Your task to perform on an android device: show emergency info Image 0: 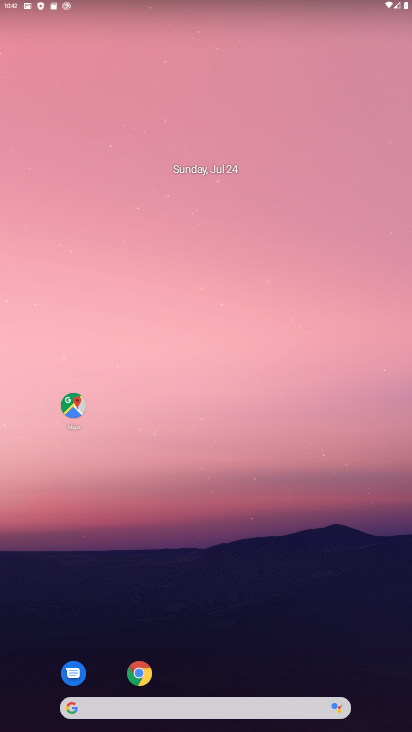
Step 0: drag from (241, 659) to (106, 24)
Your task to perform on an android device: show emergency info Image 1: 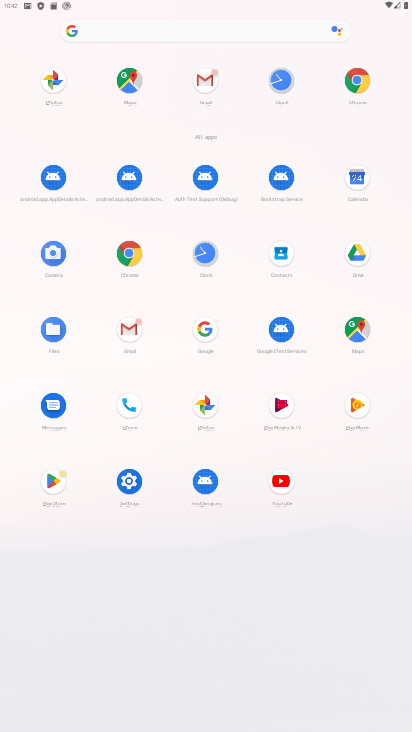
Step 1: click (137, 481)
Your task to perform on an android device: show emergency info Image 2: 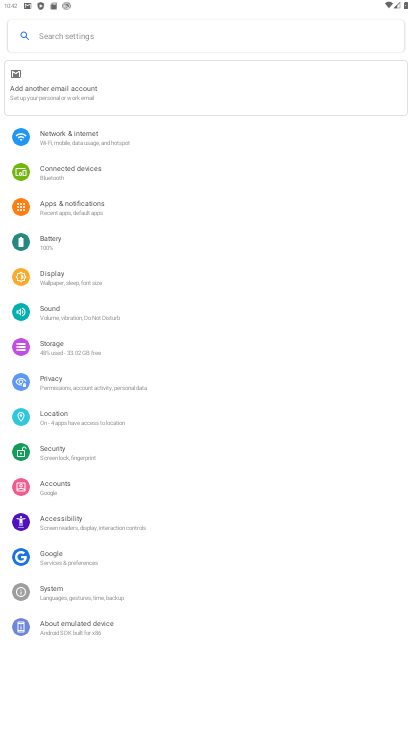
Step 2: click (81, 620)
Your task to perform on an android device: show emergency info Image 3: 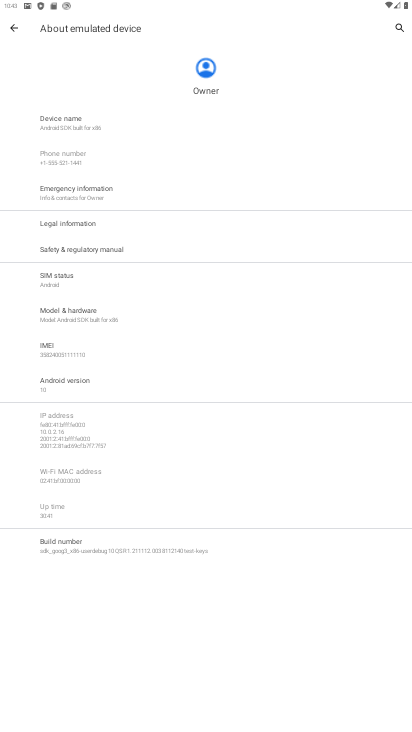
Step 3: click (51, 194)
Your task to perform on an android device: show emergency info Image 4: 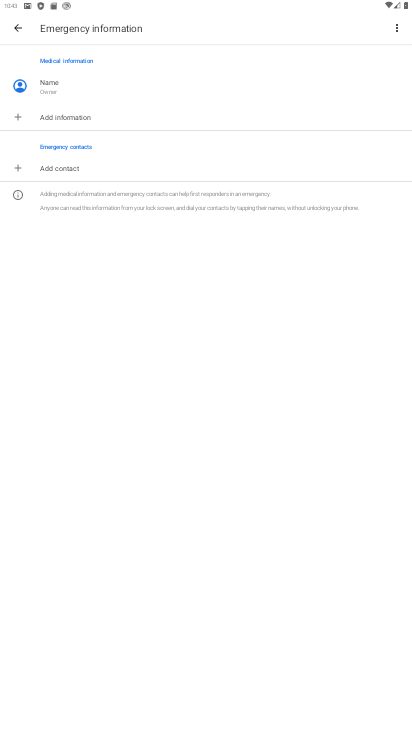
Step 4: task complete